Your task to perform on an android device: delete the emails in spam in the gmail app Image 0: 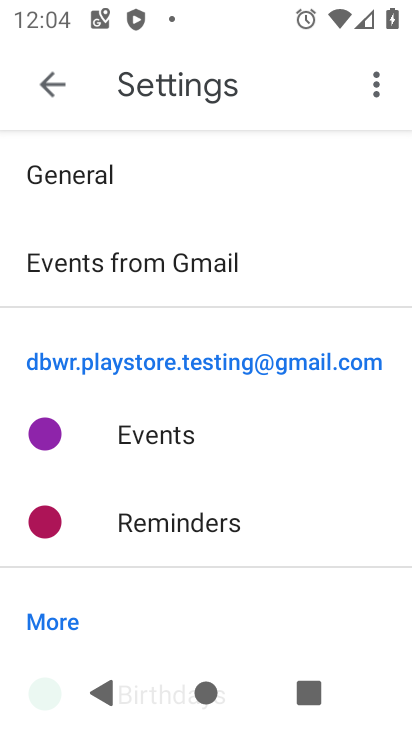
Step 0: press home button
Your task to perform on an android device: delete the emails in spam in the gmail app Image 1: 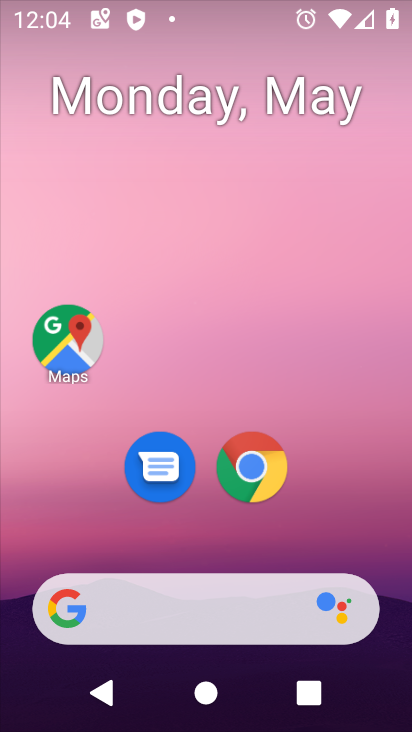
Step 1: drag from (379, 670) to (261, 58)
Your task to perform on an android device: delete the emails in spam in the gmail app Image 2: 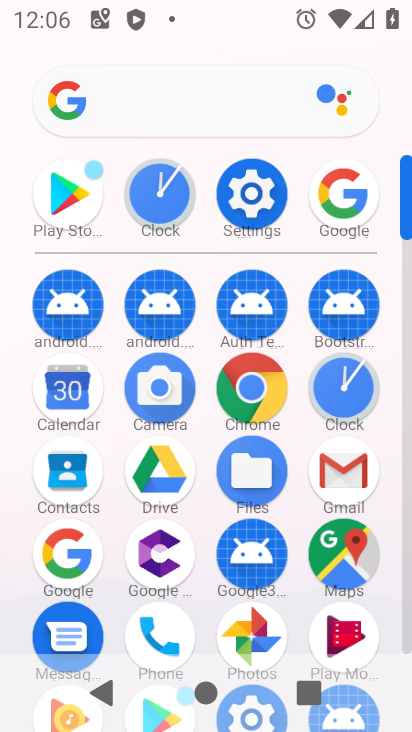
Step 2: click (354, 471)
Your task to perform on an android device: delete the emails in spam in the gmail app Image 3: 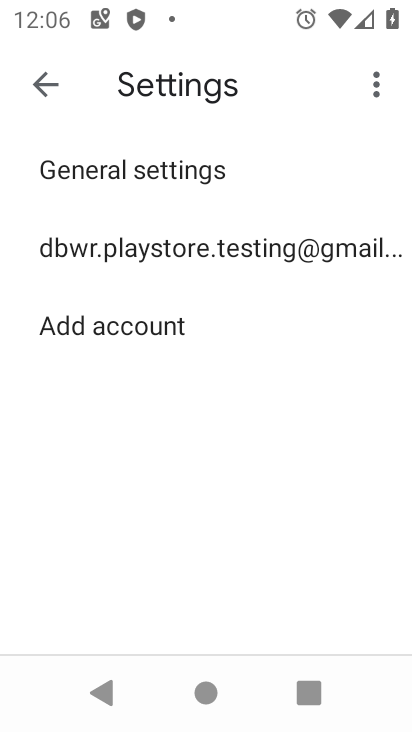
Step 3: press back button
Your task to perform on an android device: delete the emails in spam in the gmail app Image 4: 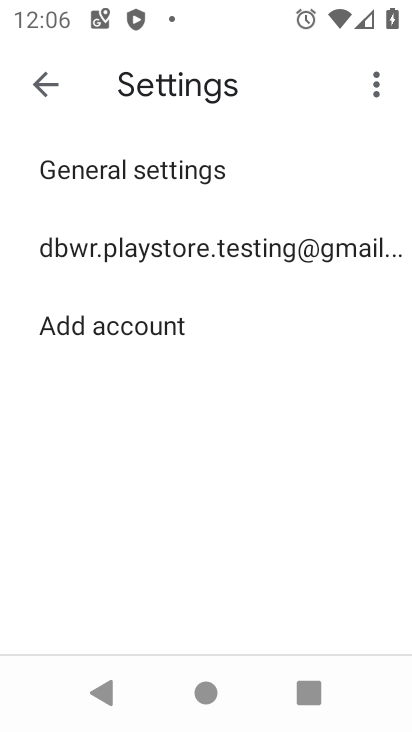
Step 4: press back button
Your task to perform on an android device: delete the emails in spam in the gmail app Image 5: 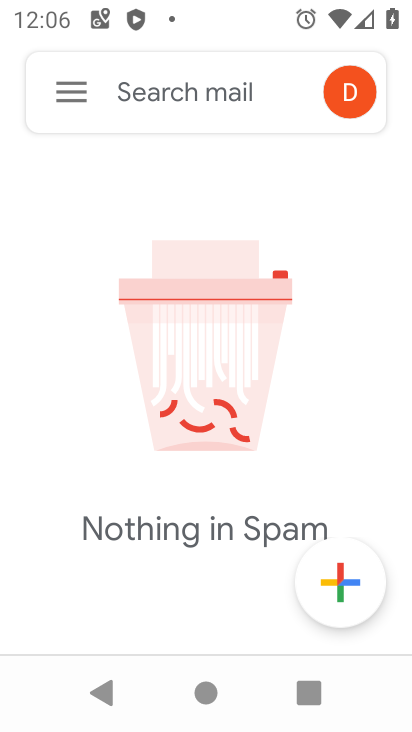
Step 5: press back button
Your task to perform on an android device: delete the emails in spam in the gmail app Image 6: 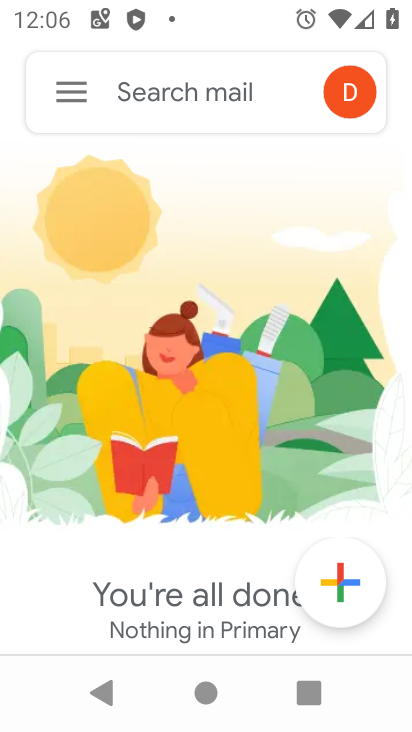
Step 6: click (43, 94)
Your task to perform on an android device: delete the emails in spam in the gmail app Image 7: 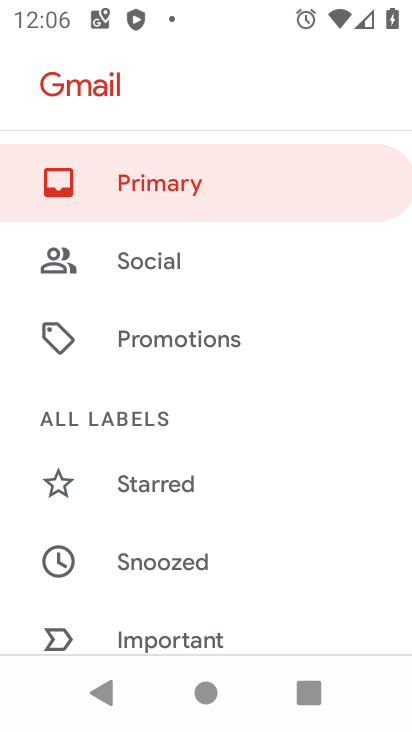
Step 7: drag from (111, 631) to (174, 125)
Your task to perform on an android device: delete the emails in spam in the gmail app Image 8: 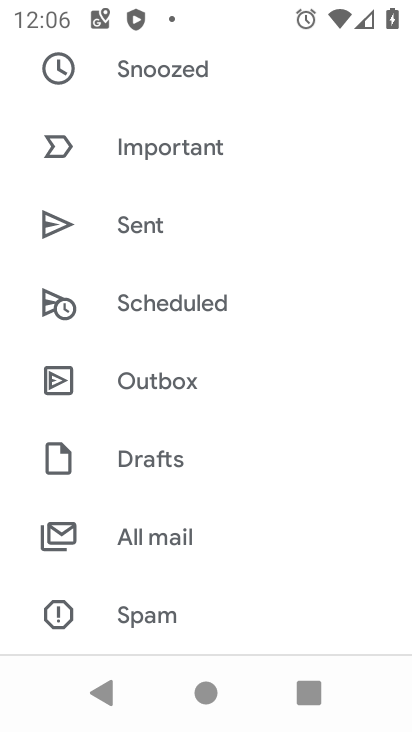
Step 8: click (156, 615)
Your task to perform on an android device: delete the emails in spam in the gmail app Image 9: 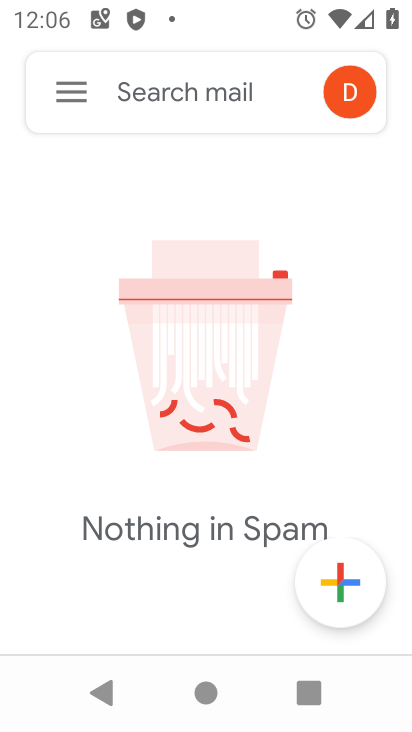
Step 9: task complete